Your task to perform on an android device: open app "YouTube Kids" (install if not already installed) Image 0: 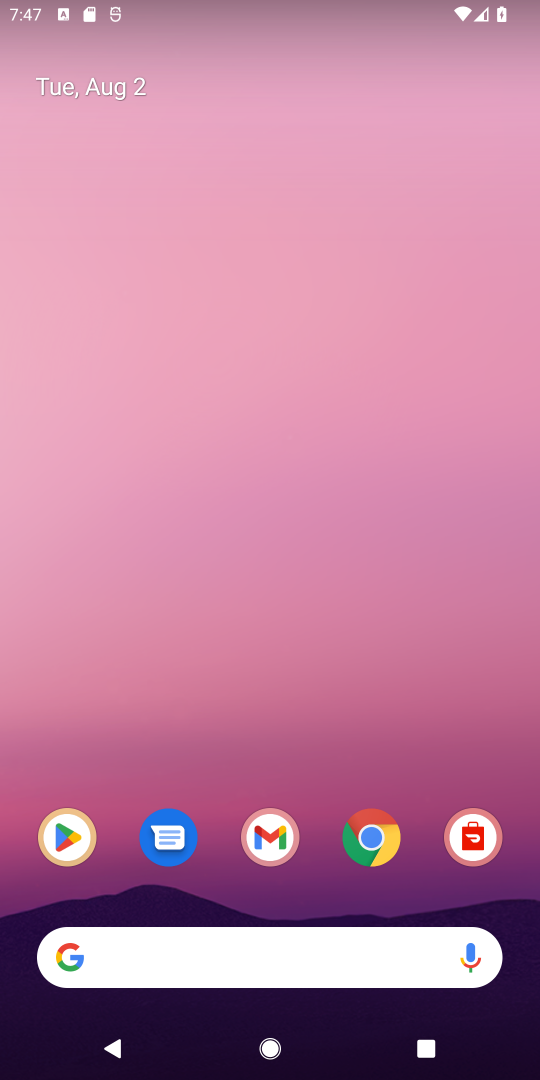
Step 0: click (62, 842)
Your task to perform on an android device: open app "YouTube Kids" (install if not already installed) Image 1: 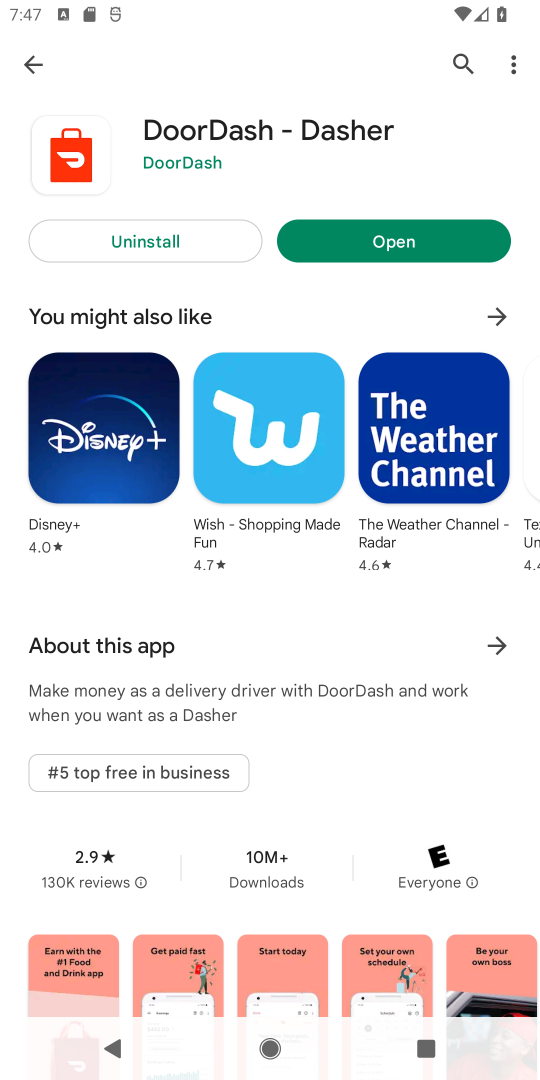
Step 1: click (456, 71)
Your task to perform on an android device: open app "YouTube Kids" (install if not already installed) Image 2: 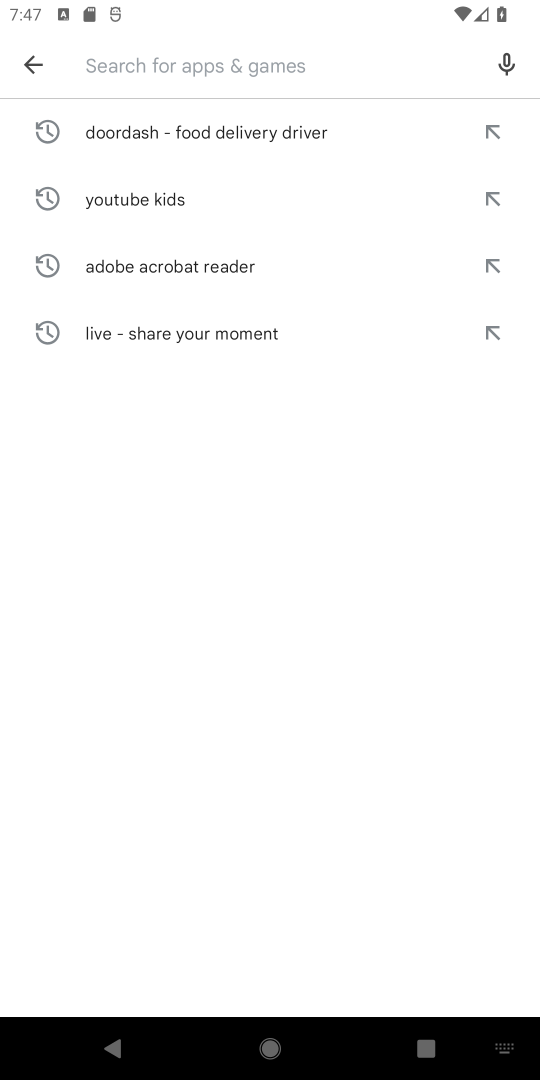
Step 2: type "YouTube Kids"
Your task to perform on an android device: open app "YouTube Kids" (install if not already installed) Image 3: 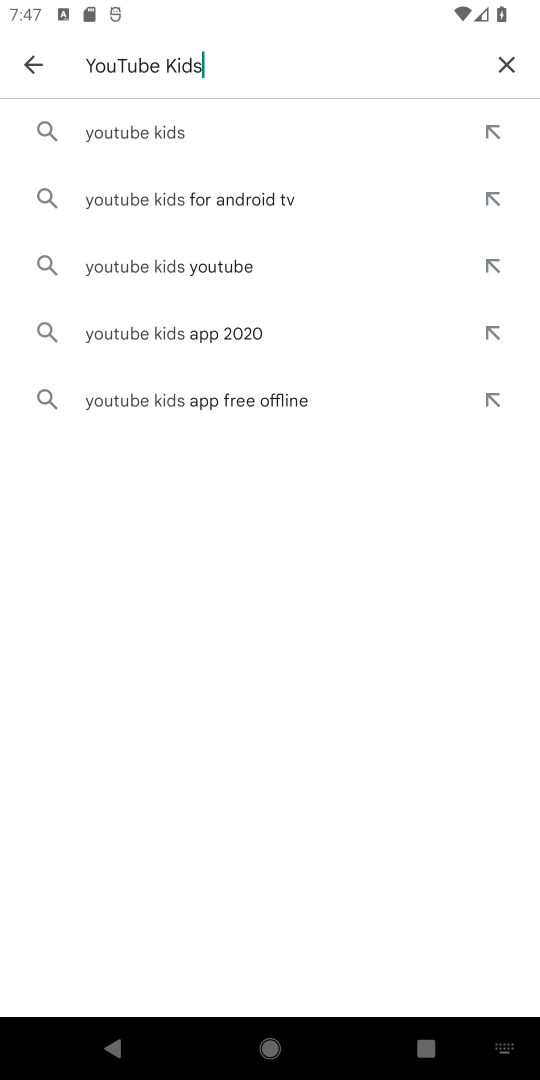
Step 3: click (162, 136)
Your task to perform on an android device: open app "YouTube Kids" (install if not already installed) Image 4: 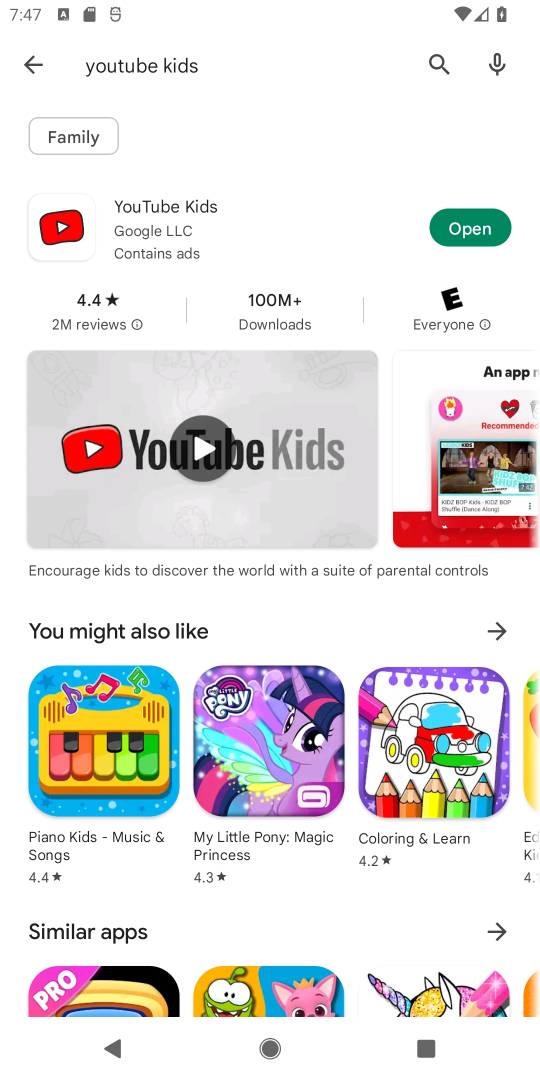
Step 4: click (472, 231)
Your task to perform on an android device: open app "YouTube Kids" (install if not already installed) Image 5: 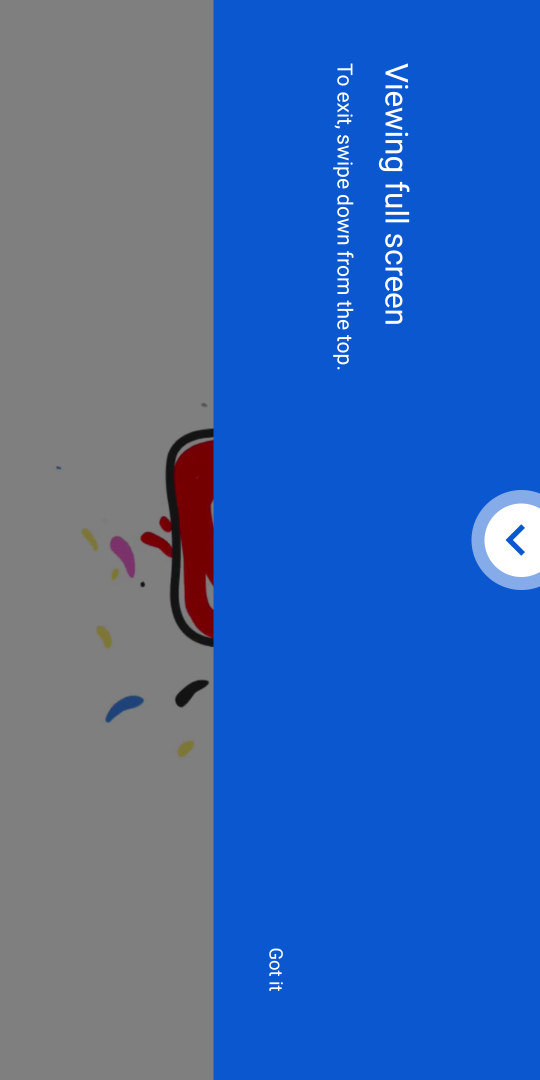
Step 5: task complete